Your task to perform on an android device: turn pop-ups off in chrome Image 0: 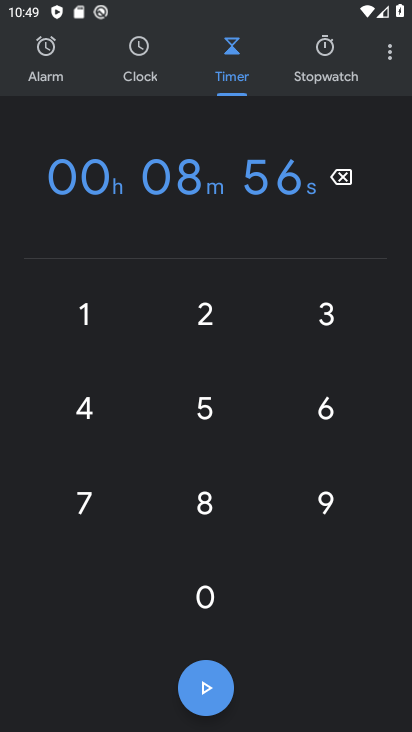
Step 0: press home button
Your task to perform on an android device: turn pop-ups off in chrome Image 1: 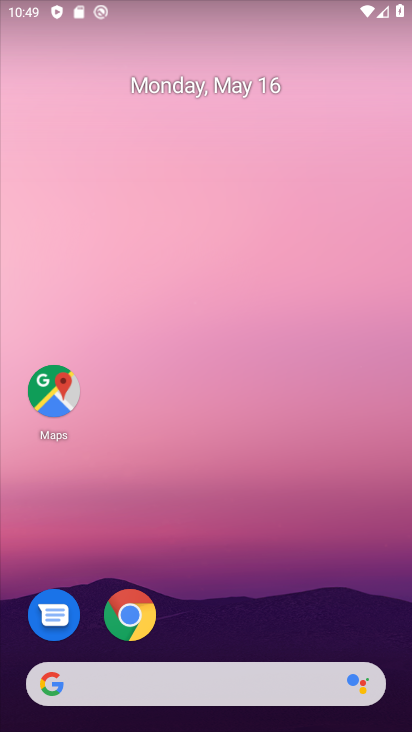
Step 1: drag from (230, 551) to (292, 87)
Your task to perform on an android device: turn pop-ups off in chrome Image 2: 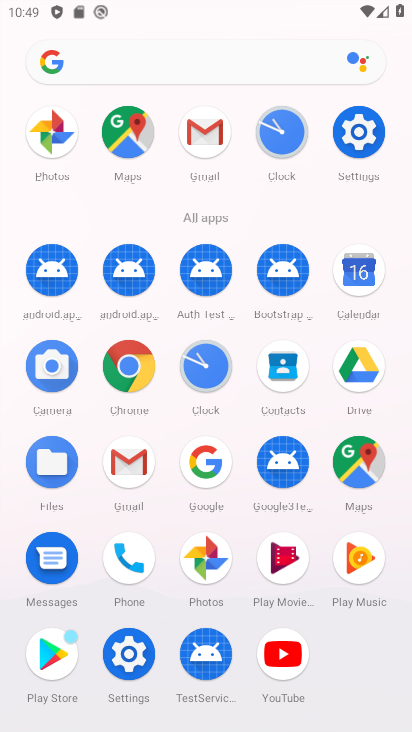
Step 2: click (132, 365)
Your task to perform on an android device: turn pop-ups off in chrome Image 3: 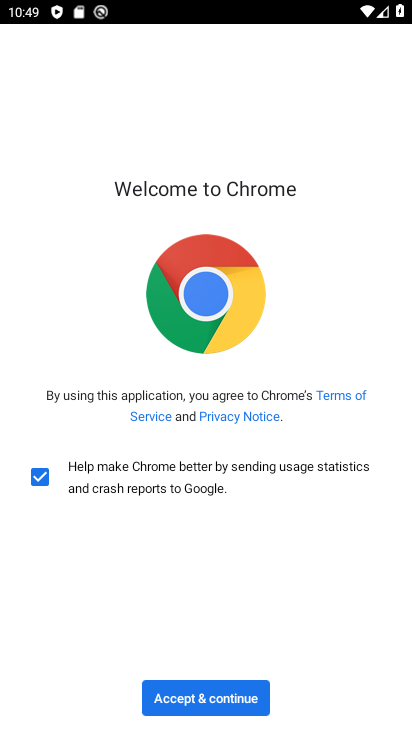
Step 3: click (213, 697)
Your task to perform on an android device: turn pop-ups off in chrome Image 4: 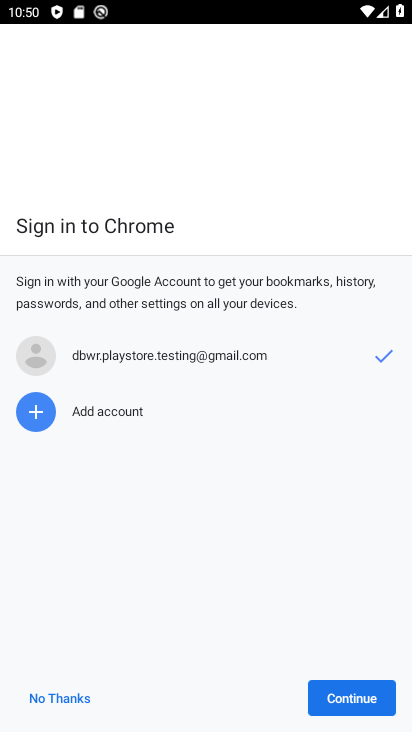
Step 4: click (401, 704)
Your task to perform on an android device: turn pop-ups off in chrome Image 5: 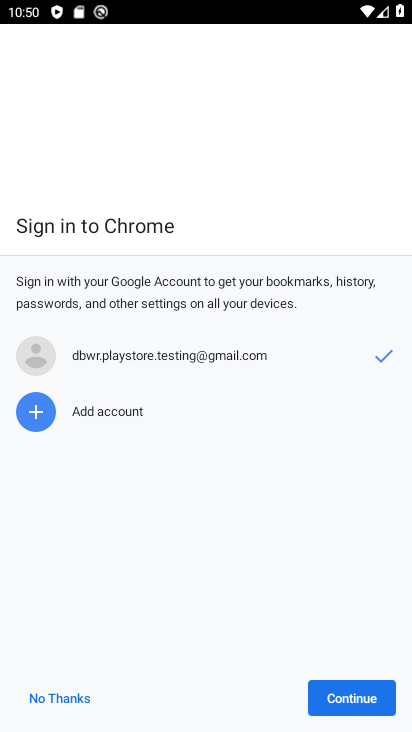
Step 5: click (382, 699)
Your task to perform on an android device: turn pop-ups off in chrome Image 6: 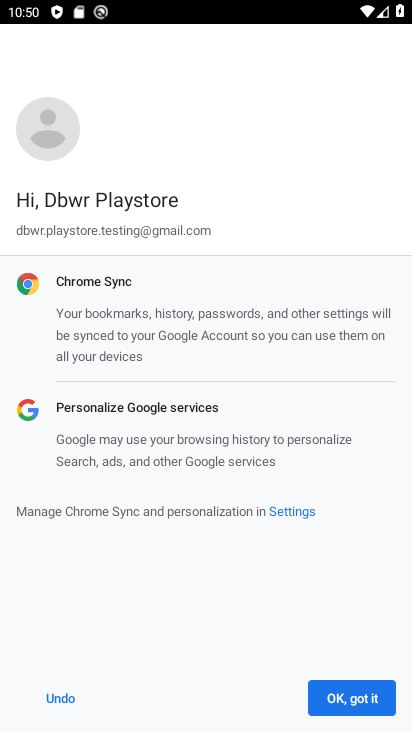
Step 6: click (382, 699)
Your task to perform on an android device: turn pop-ups off in chrome Image 7: 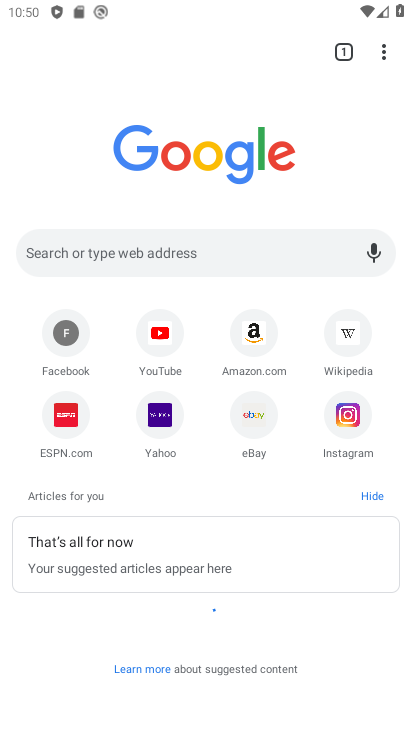
Step 7: drag from (380, 51) to (209, 420)
Your task to perform on an android device: turn pop-ups off in chrome Image 8: 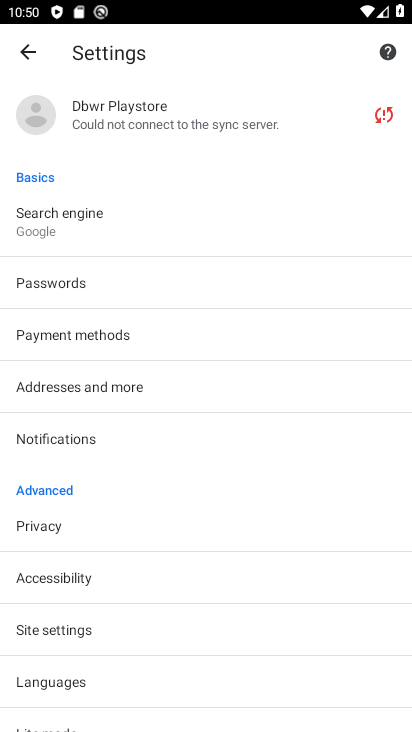
Step 8: drag from (246, 499) to (245, 277)
Your task to perform on an android device: turn pop-ups off in chrome Image 9: 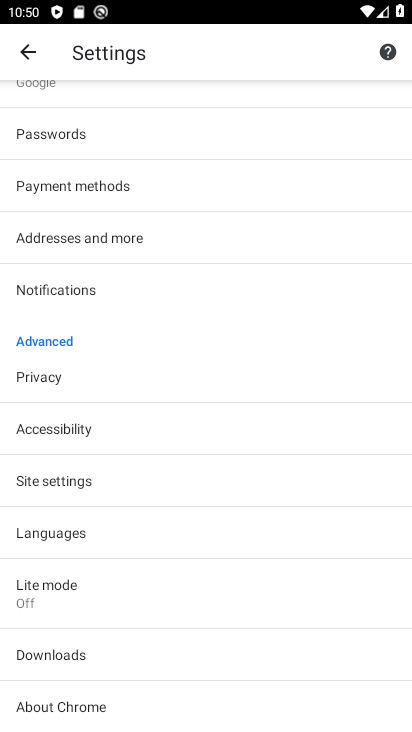
Step 9: click (67, 477)
Your task to perform on an android device: turn pop-ups off in chrome Image 10: 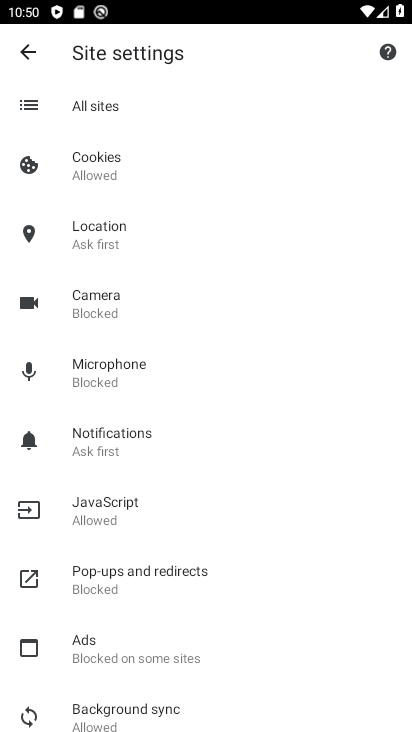
Step 10: click (186, 566)
Your task to perform on an android device: turn pop-ups off in chrome Image 11: 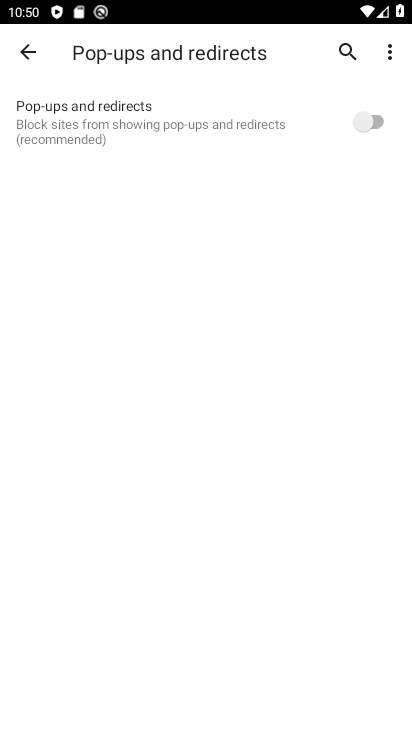
Step 11: task complete